Your task to perform on an android device: Go to network settings Image 0: 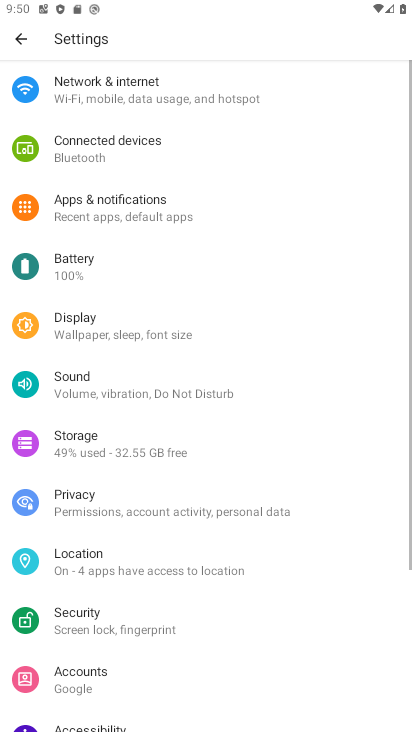
Step 0: click (155, 91)
Your task to perform on an android device: Go to network settings Image 1: 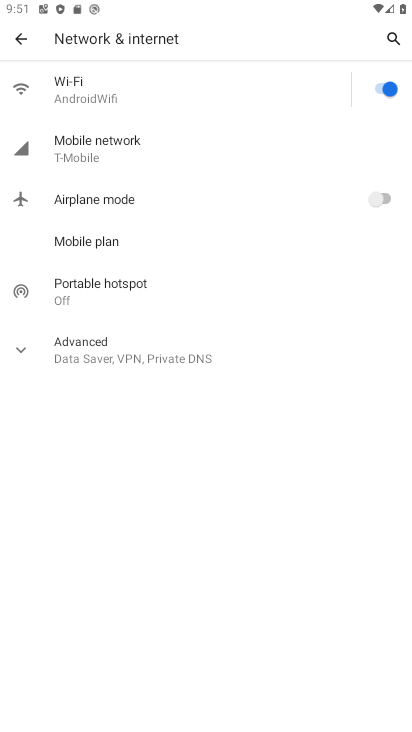
Step 1: task complete